Your task to perform on an android device: Do I have any events today? Image 0: 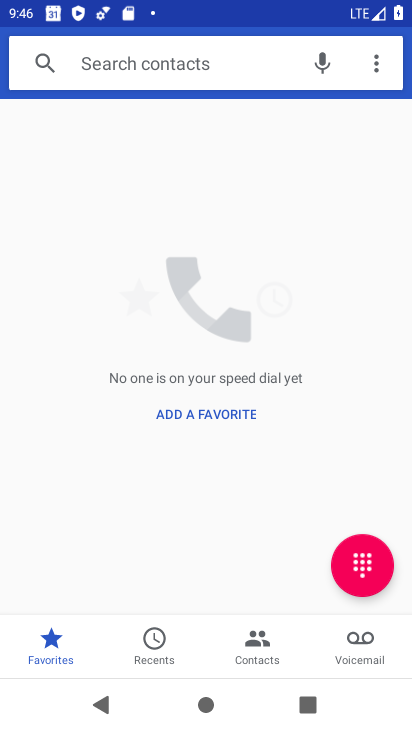
Step 0: press home button
Your task to perform on an android device: Do I have any events today? Image 1: 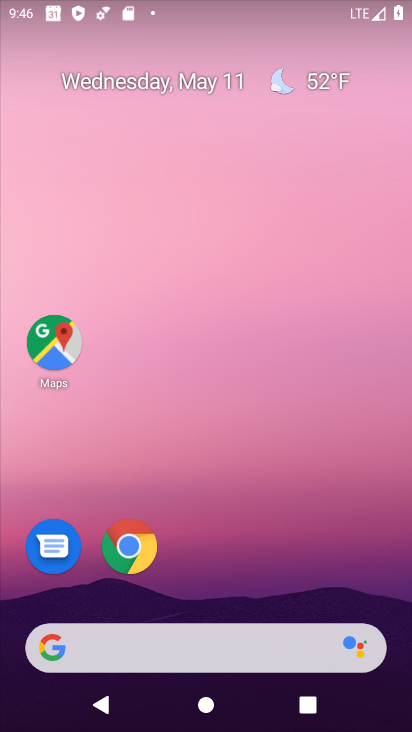
Step 1: drag from (246, 631) to (157, 144)
Your task to perform on an android device: Do I have any events today? Image 2: 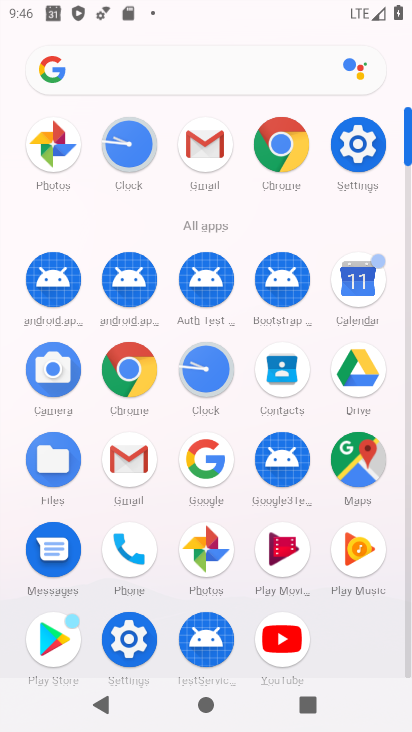
Step 2: click (356, 270)
Your task to perform on an android device: Do I have any events today? Image 3: 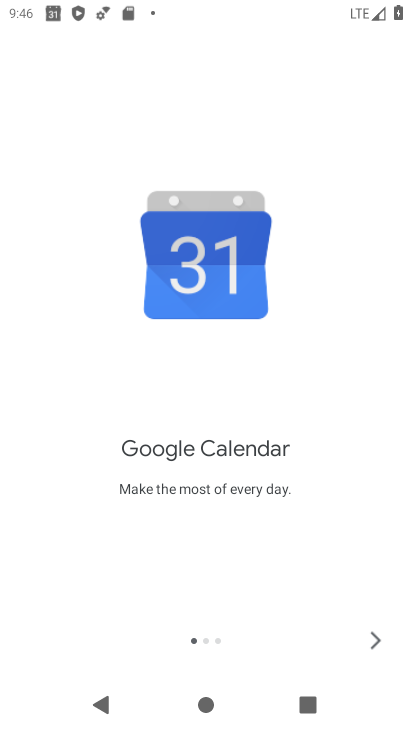
Step 3: click (377, 643)
Your task to perform on an android device: Do I have any events today? Image 4: 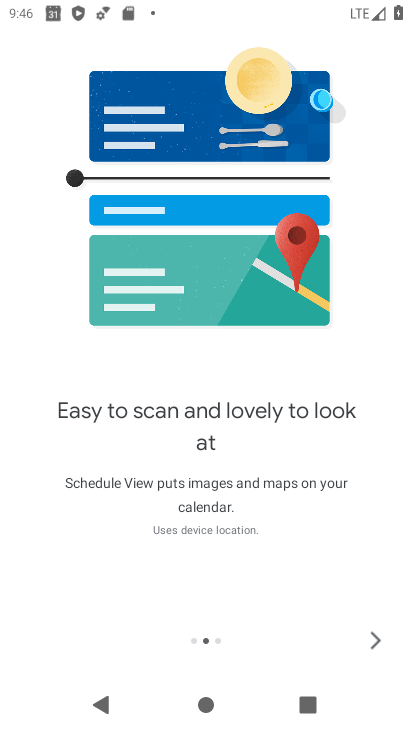
Step 4: click (376, 645)
Your task to perform on an android device: Do I have any events today? Image 5: 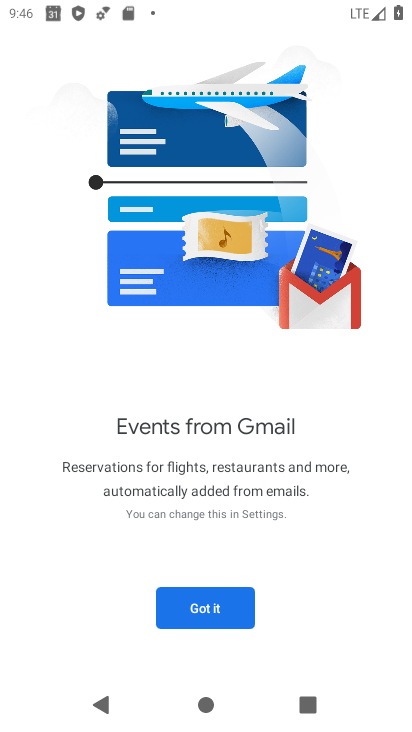
Step 5: click (199, 596)
Your task to perform on an android device: Do I have any events today? Image 6: 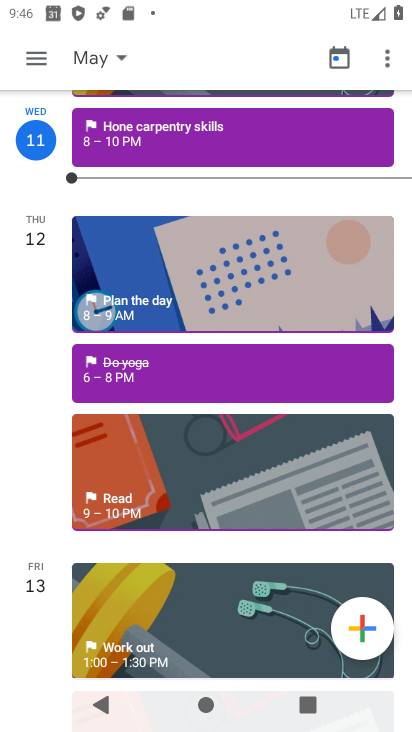
Step 6: click (44, 53)
Your task to perform on an android device: Do I have any events today? Image 7: 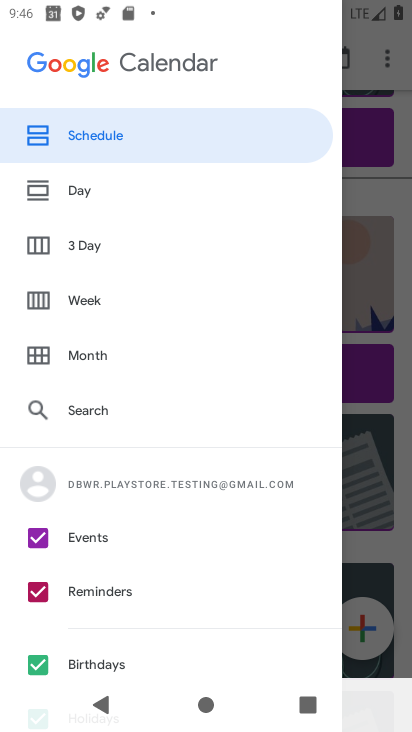
Step 7: click (92, 131)
Your task to perform on an android device: Do I have any events today? Image 8: 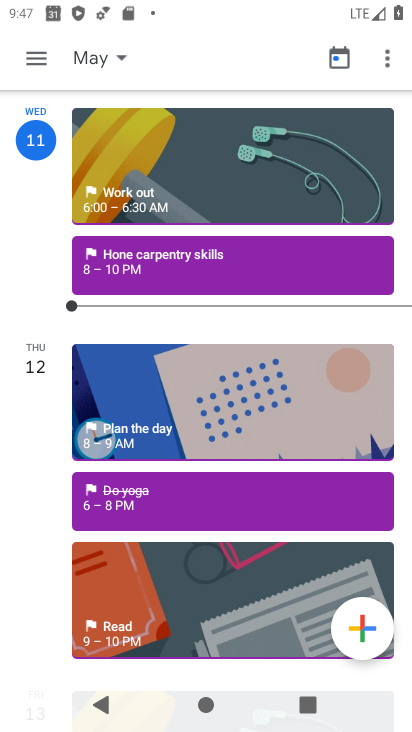
Step 8: task complete